Your task to perform on an android device: set the stopwatch Image 0: 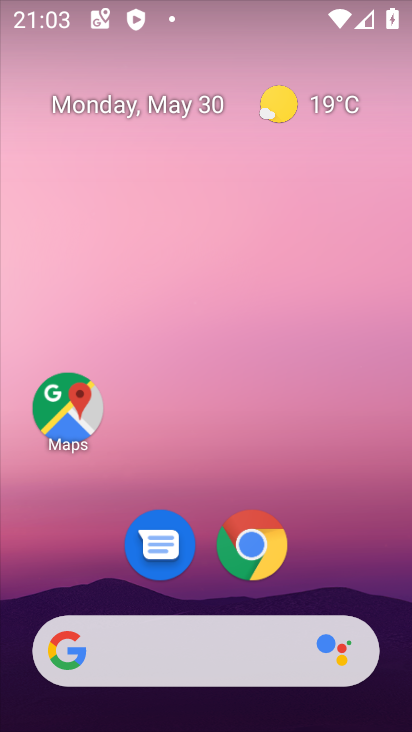
Step 0: drag from (355, 560) to (361, 129)
Your task to perform on an android device: set the stopwatch Image 1: 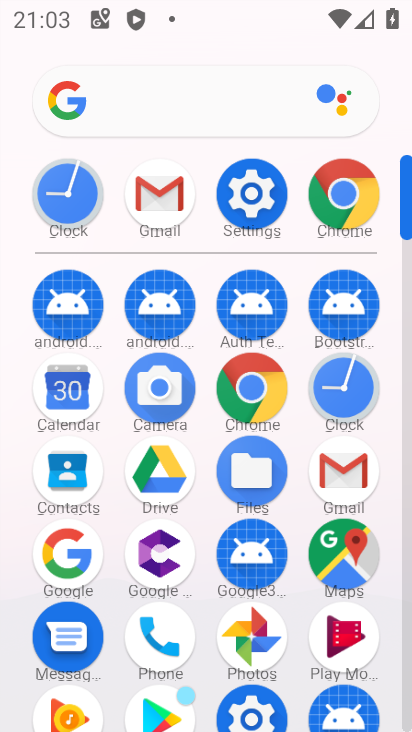
Step 1: click (344, 383)
Your task to perform on an android device: set the stopwatch Image 2: 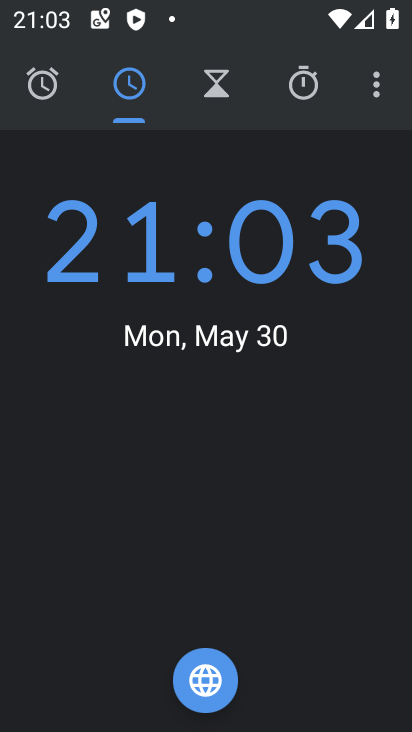
Step 2: click (299, 85)
Your task to perform on an android device: set the stopwatch Image 3: 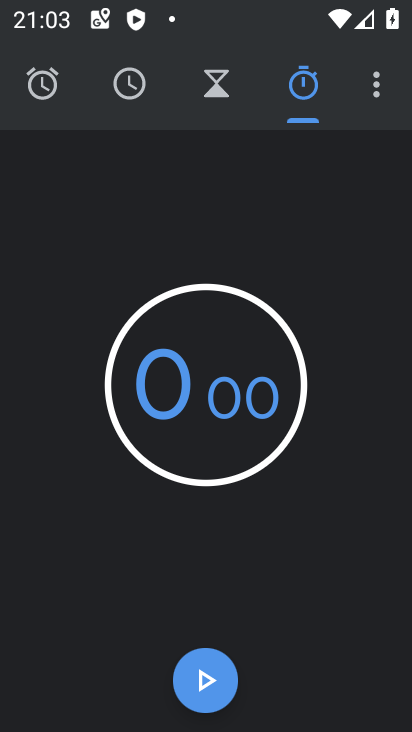
Step 3: click (208, 689)
Your task to perform on an android device: set the stopwatch Image 4: 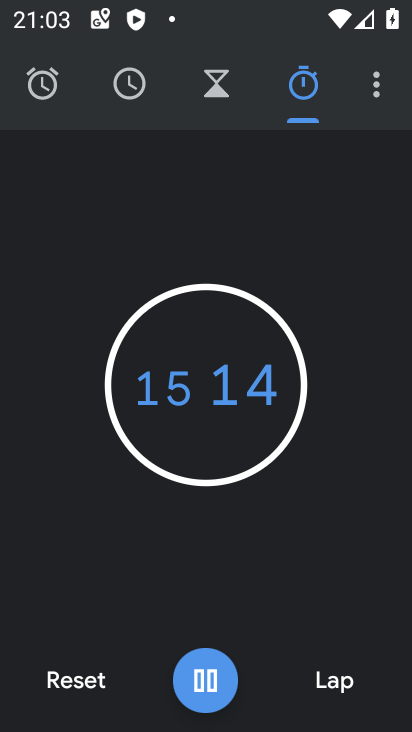
Step 4: task complete